Your task to perform on an android device: move a message to another label in the gmail app Image 0: 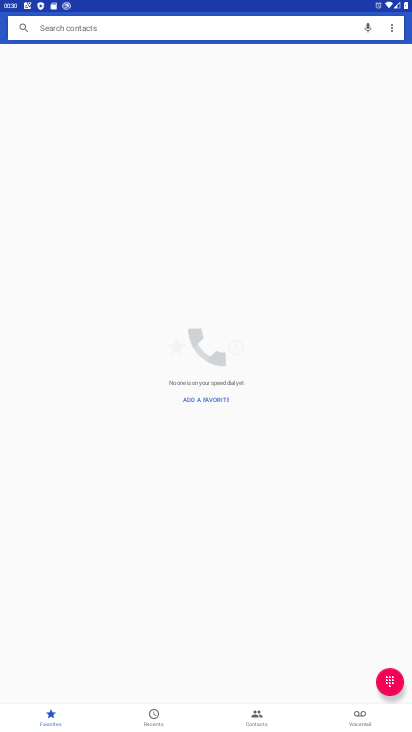
Step 0: press home button
Your task to perform on an android device: move a message to another label in the gmail app Image 1: 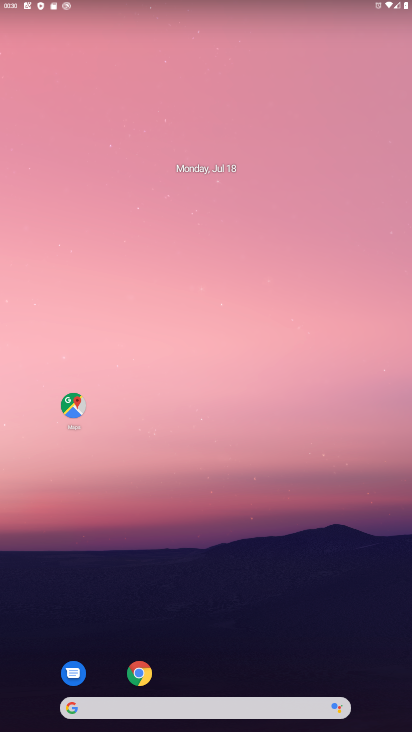
Step 1: drag from (230, 668) to (224, 186)
Your task to perform on an android device: move a message to another label in the gmail app Image 2: 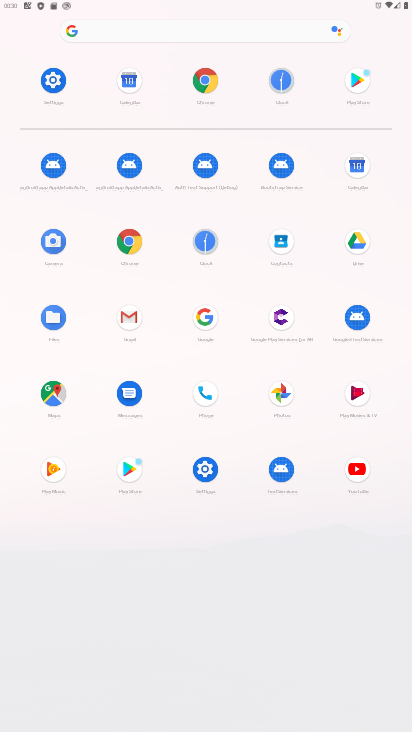
Step 2: click (130, 312)
Your task to perform on an android device: move a message to another label in the gmail app Image 3: 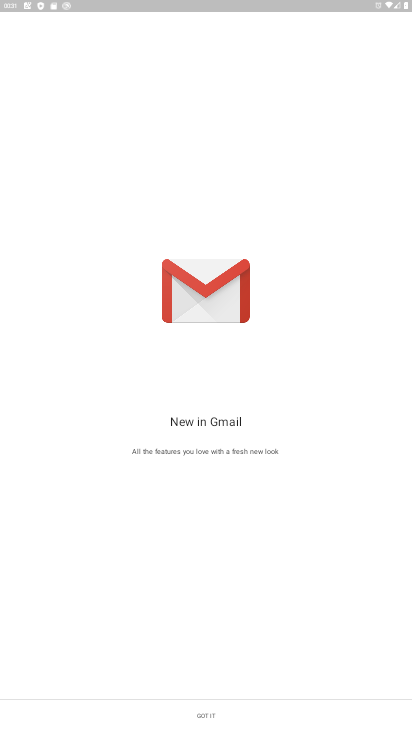
Step 3: click (212, 723)
Your task to perform on an android device: move a message to another label in the gmail app Image 4: 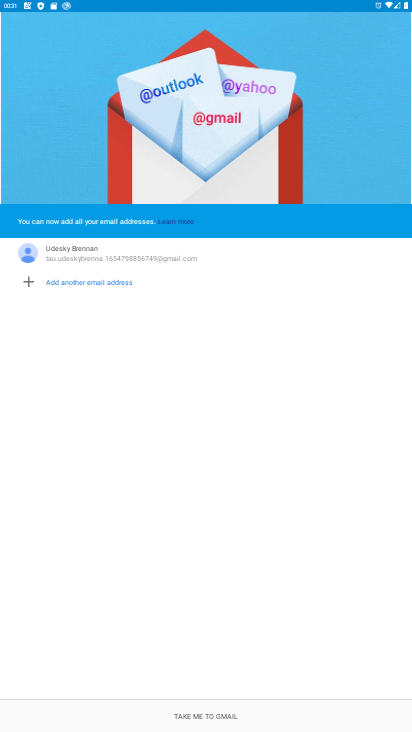
Step 4: click (234, 708)
Your task to perform on an android device: move a message to another label in the gmail app Image 5: 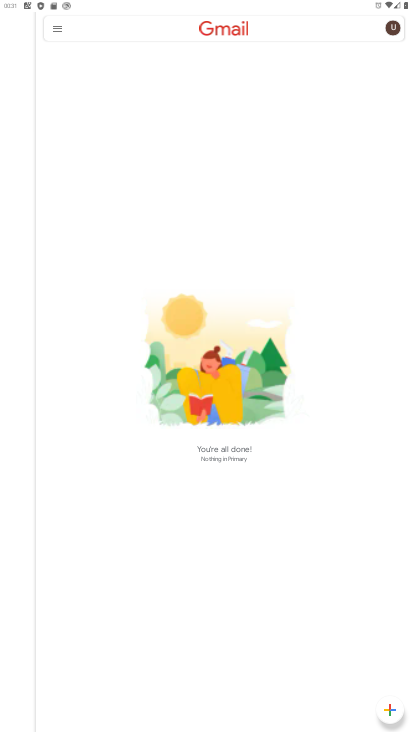
Step 5: task complete